Your task to perform on an android device: turn off sleep mode Image 0: 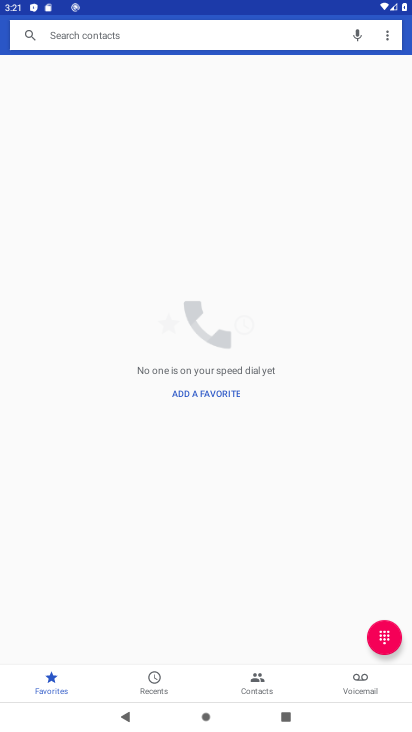
Step 0: press home button
Your task to perform on an android device: turn off sleep mode Image 1: 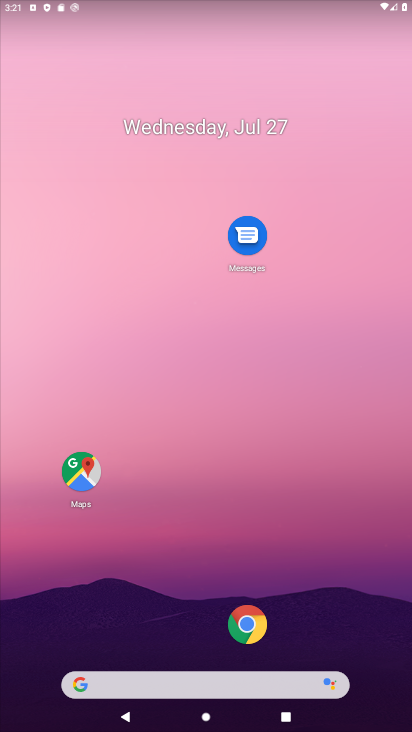
Step 1: drag from (166, 592) to (50, 5)
Your task to perform on an android device: turn off sleep mode Image 2: 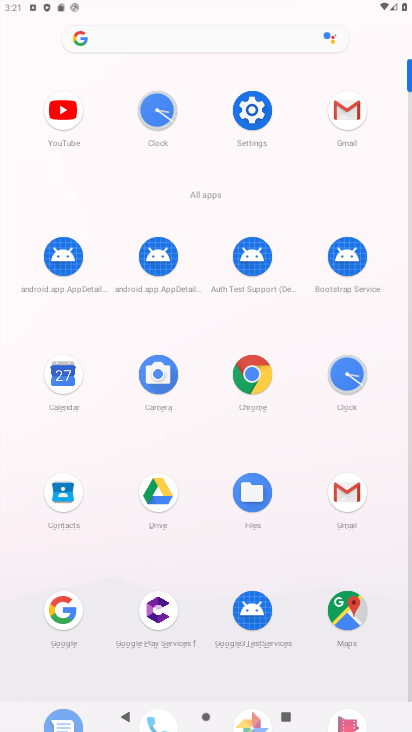
Step 2: click (230, 124)
Your task to perform on an android device: turn off sleep mode Image 3: 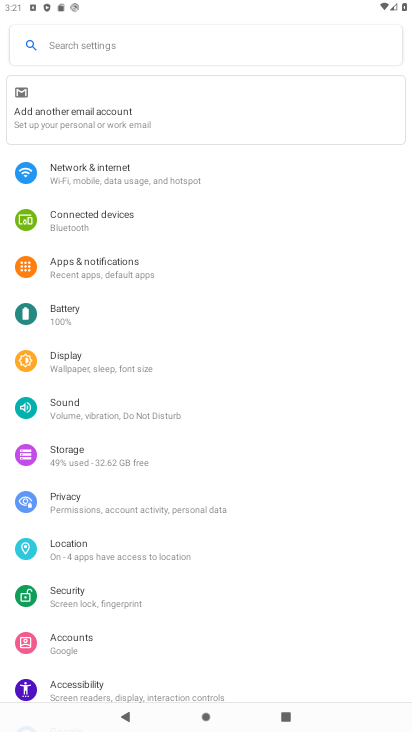
Step 3: task complete